Your task to perform on an android device: change the clock display to analog Image 0: 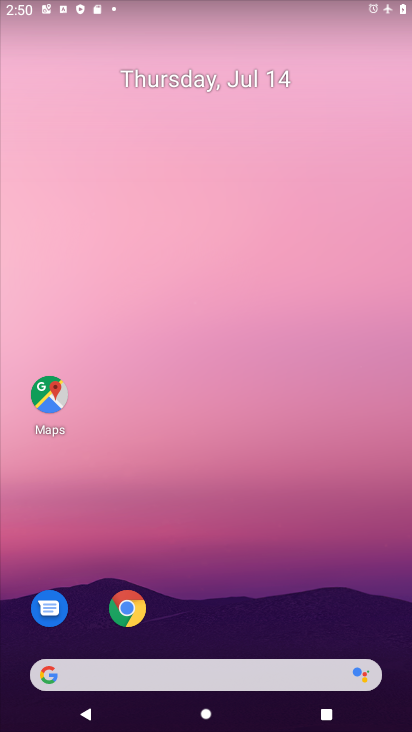
Step 0: drag from (389, 635) to (345, 113)
Your task to perform on an android device: change the clock display to analog Image 1: 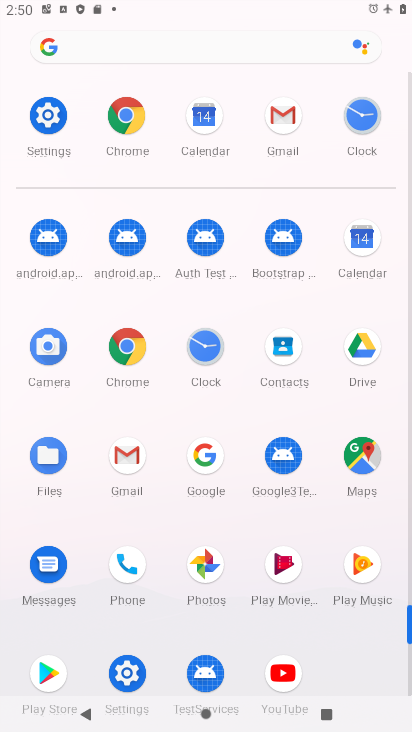
Step 1: click (202, 346)
Your task to perform on an android device: change the clock display to analog Image 2: 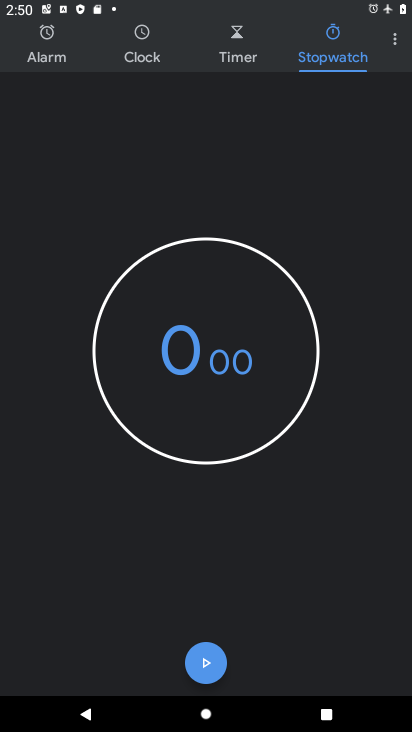
Step 2: click (396, 45)
Your task to perform on an android device: change the clock display to analog Image 3: 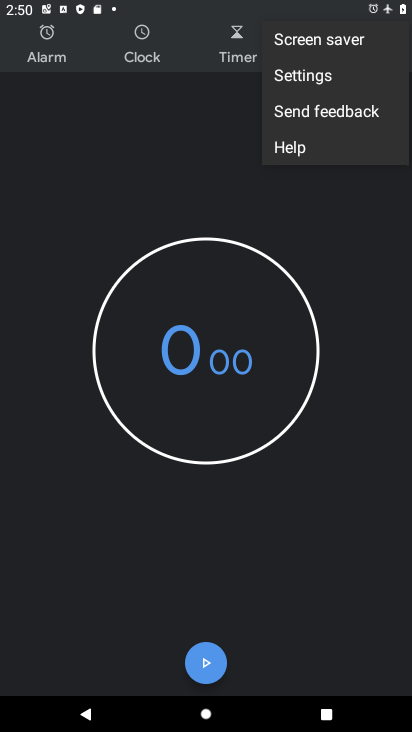
Step 3: click (299, 70)
Your task to perform on an android device: change the clock display to analog Image 4: 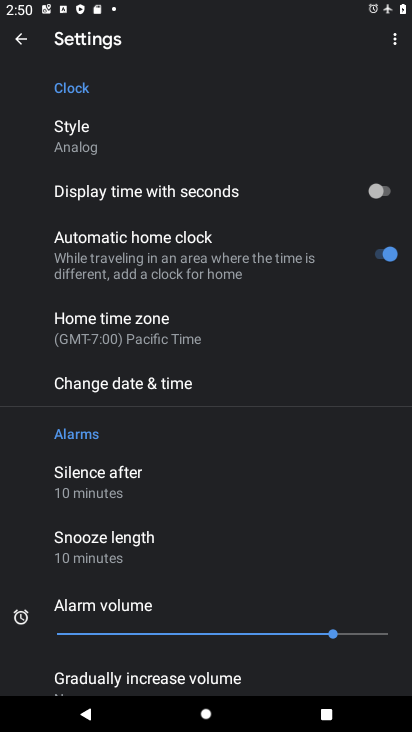
Step 4: task complete